Your task to perform on an android device: Go to Google Image 0: 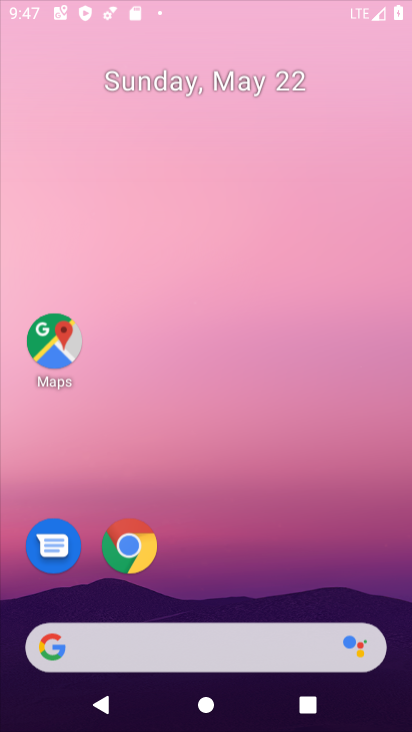
Step 0: click (317, 141)
Your task to perform on an android device: Go to Google Image 1: 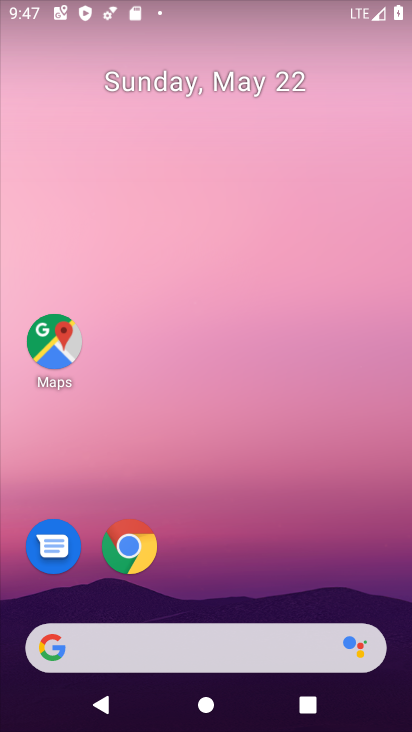
Step 1: drag from (191, 606) to (323, 58)
Your task to perform on an android device: Go to Google Image 2: 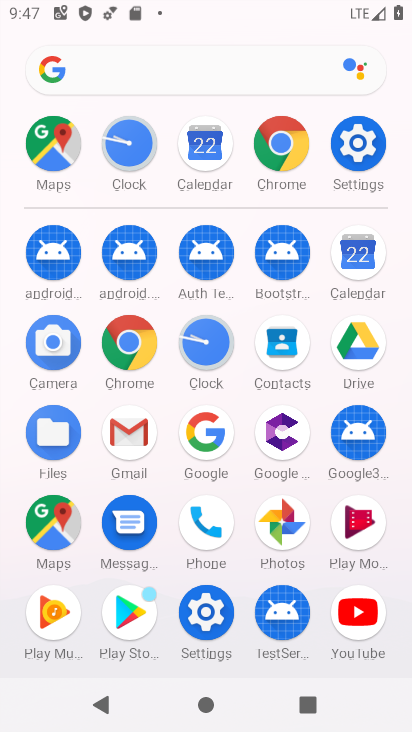
Step 2: click (196, 427)
Your task to perform on an android device: Go to Google Image 3: 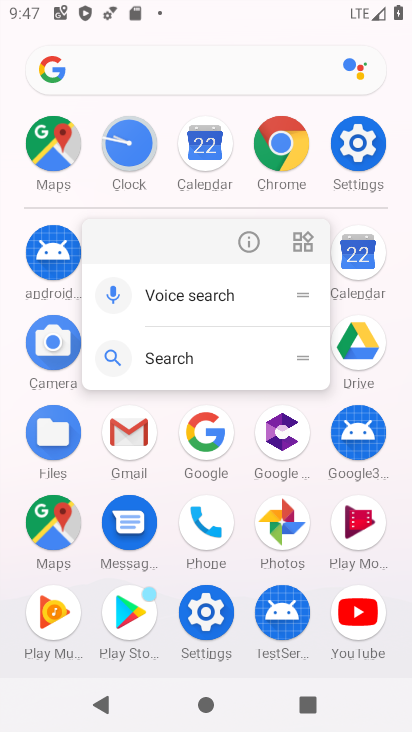
Step 3: click (247, 251)
Your task to perform on an android device: Go to Google Image 4: 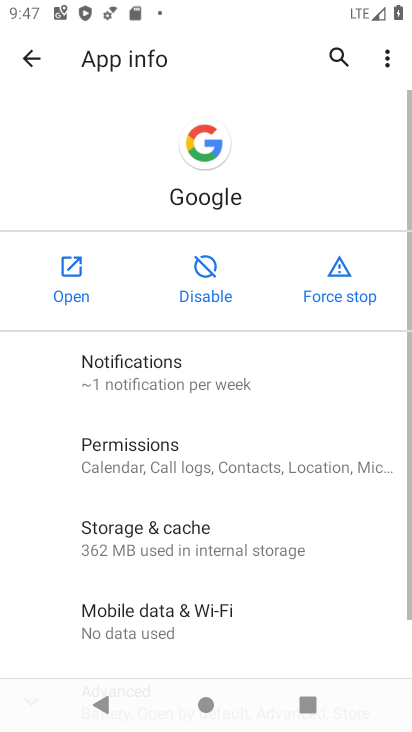
Step 4: click (93, 273)
Your task to perform on an android device: Go to Google Image 5: 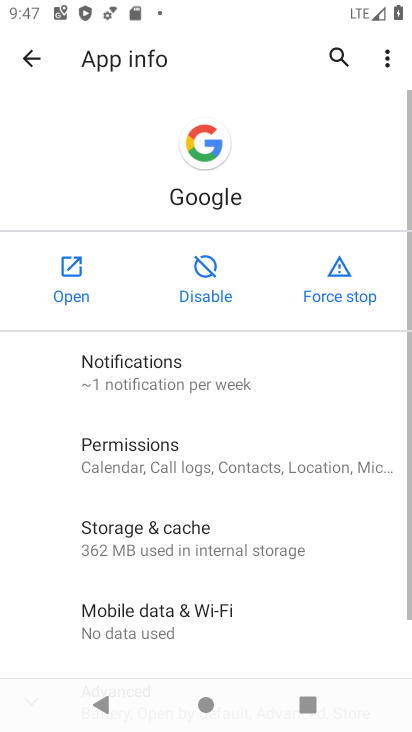
Step 5: click (93, 273)
Your task to perform on an android device: Go to Google Image 6: 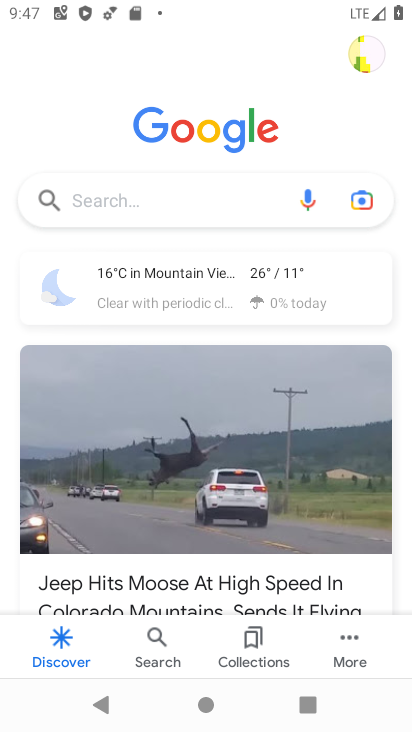
Step 6: task complete